Your task to perform on an android device: toggle improve location accuracy Image 0: 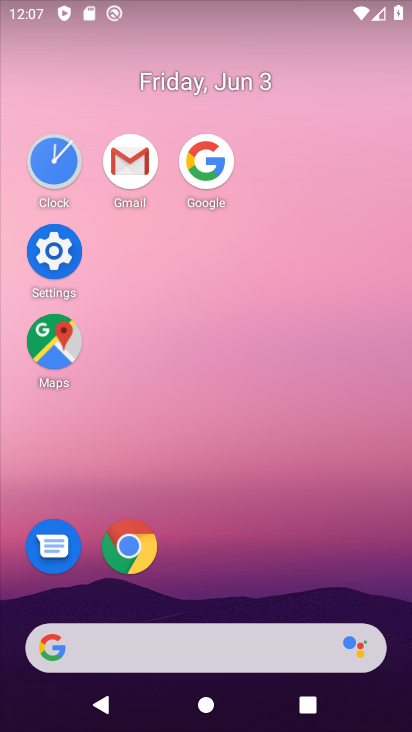
Step 0: click (56, 271)
Your task to perform on an android device: toggle improve location accuracy Image 1: 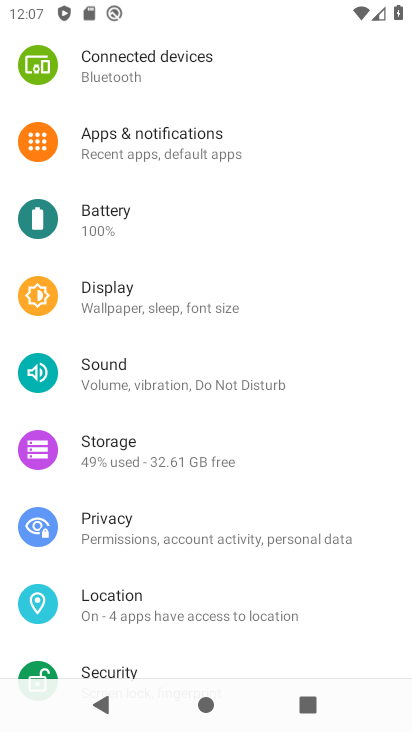
Step 1: click (234, 599)
Your task to perform on an android device: toggle improve location accuracy Image 2: 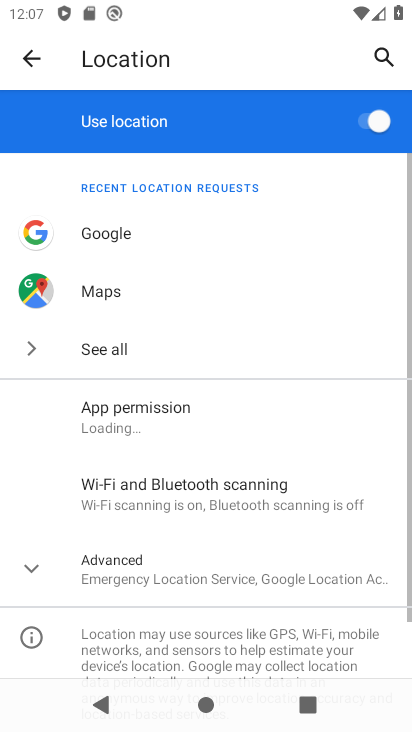
Step 2: click (208, 570)
Your task to perform on an android device: toggle improve location accuracy Image 3: 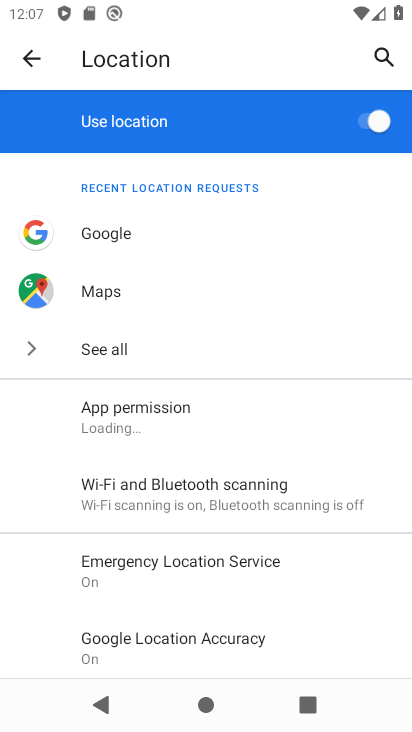
Step 3: click (219, 626)
Your task to perform on an android device: toggle improve location accuracy Image 4: 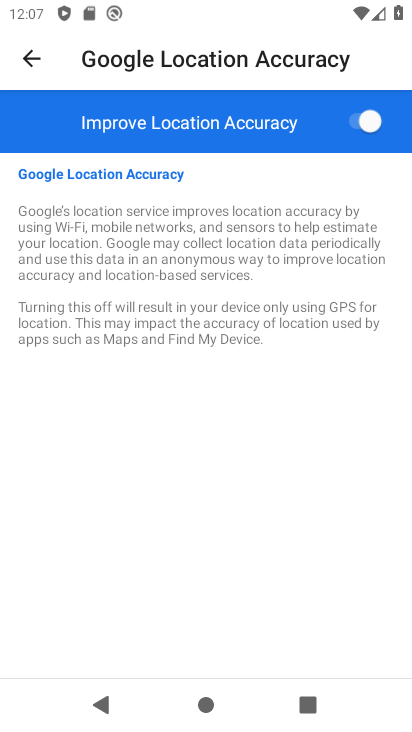
Step 4: click (355, 128)
Your task to perform on an android device: toggle improve location accuracy Image 5: 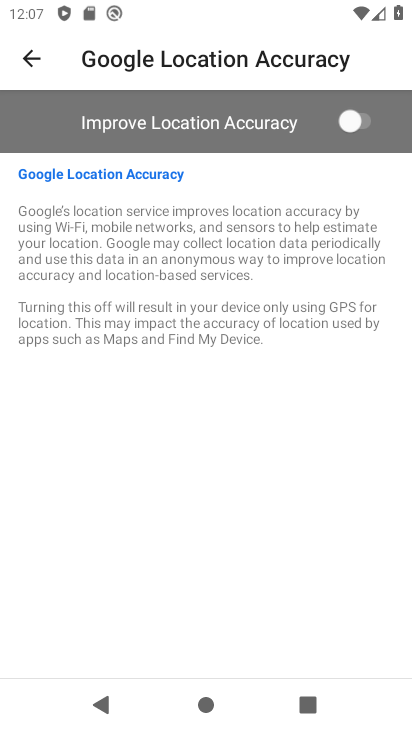
Step 5: task complete